Your task to perform on an android device: install app "Roku - Official Remote Control" Image 0: 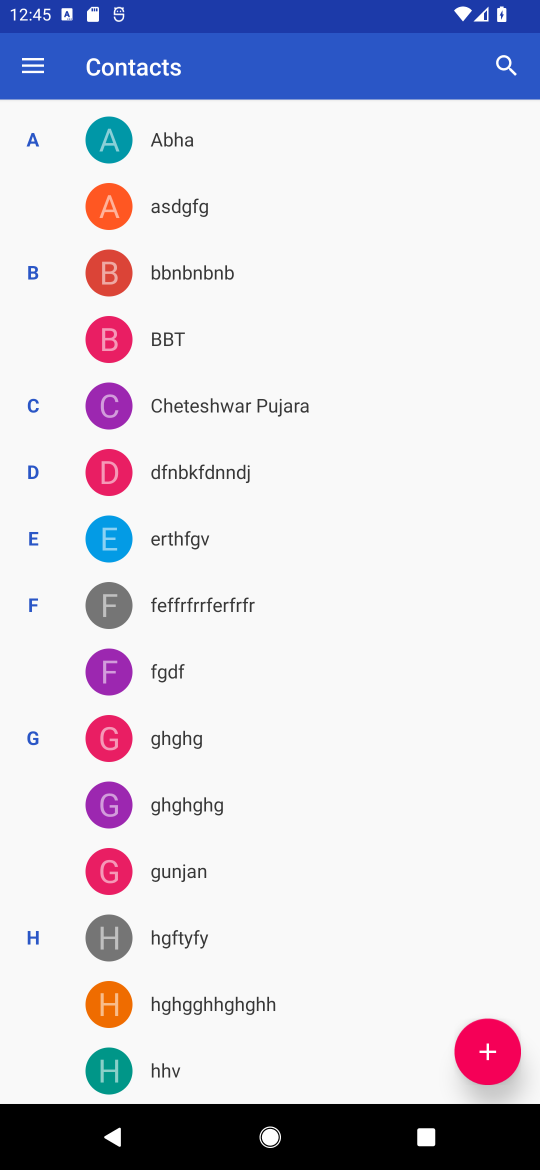
Step 0: press home button
Your task to perform on an android device: install app "Roku - Official Remote Control" Image 1: 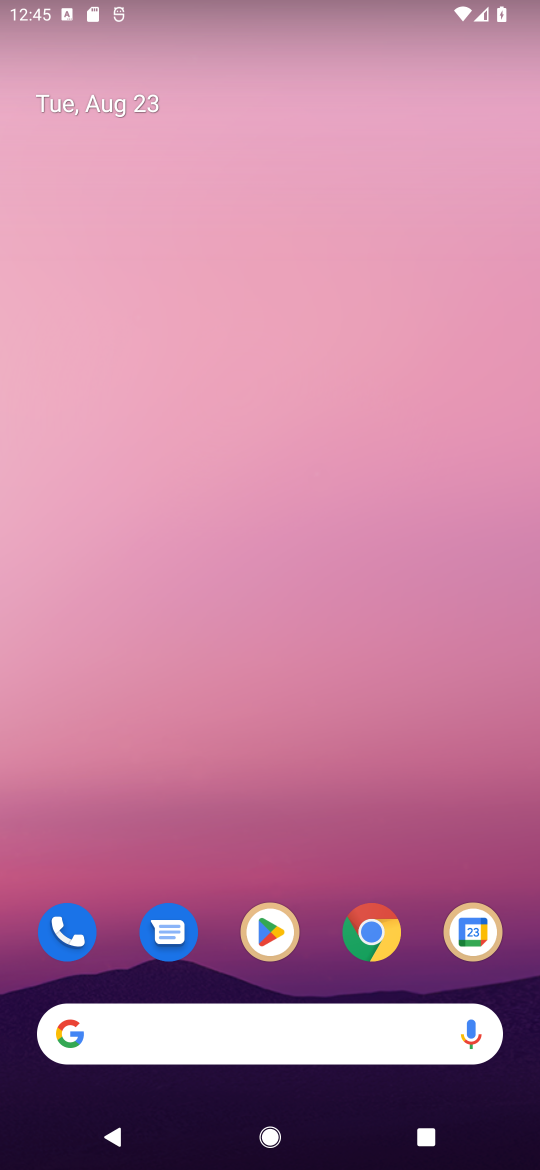
Step 1: click (250, 926)
Your task to perform on an android device: install app "Roku - Official Remote Control" Image 2: 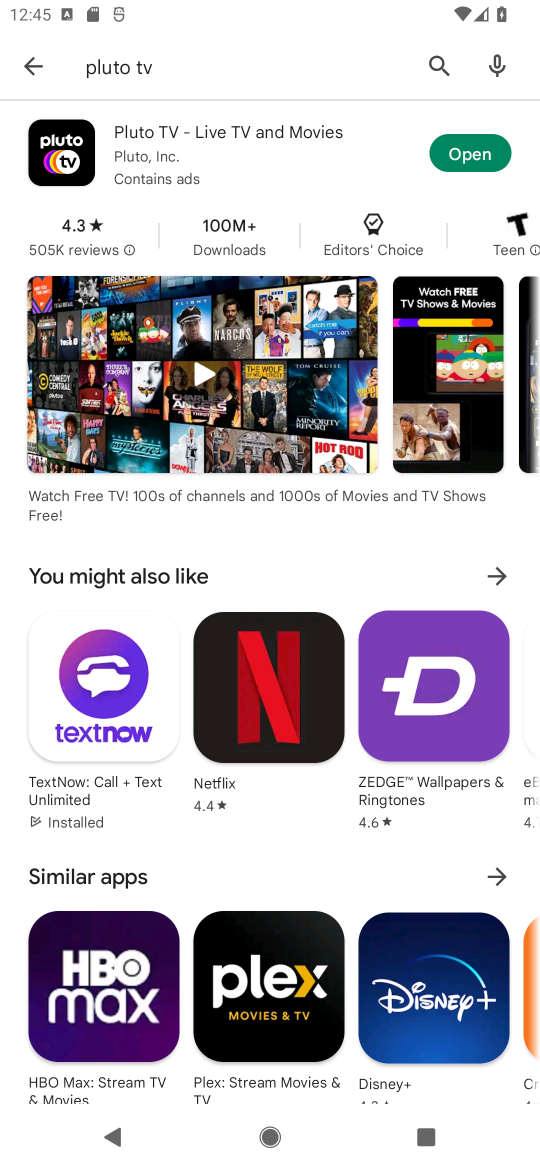
Step 2: click (431, 59)
Your task to perform on an android device: install app "Roku - Official Remote Control" Image 3: 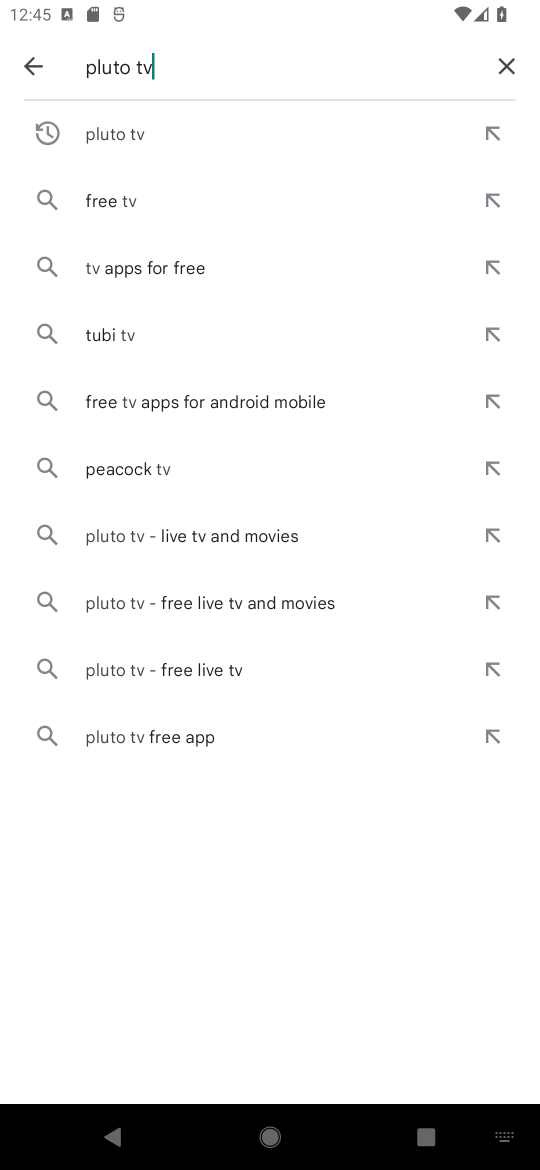
Step 3: click (507, 60)
Your task to perform on an android device: install app "Roku - Official Remote Control" Image 4: 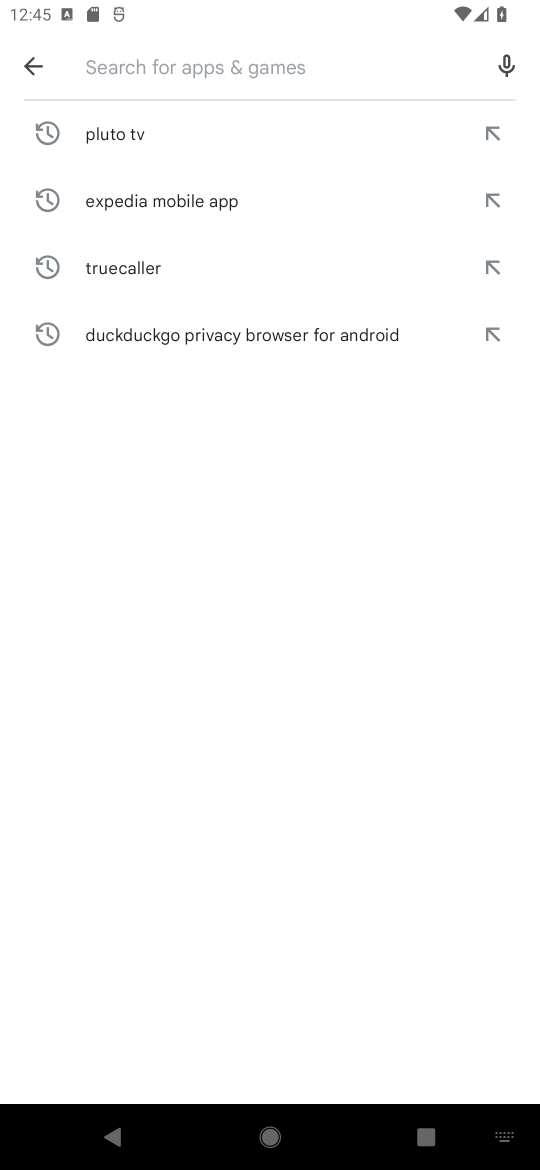
Step 4: click (117, 61)
Your task to perform on an android device: install app "Roku - Official Remote Control" Image 5: 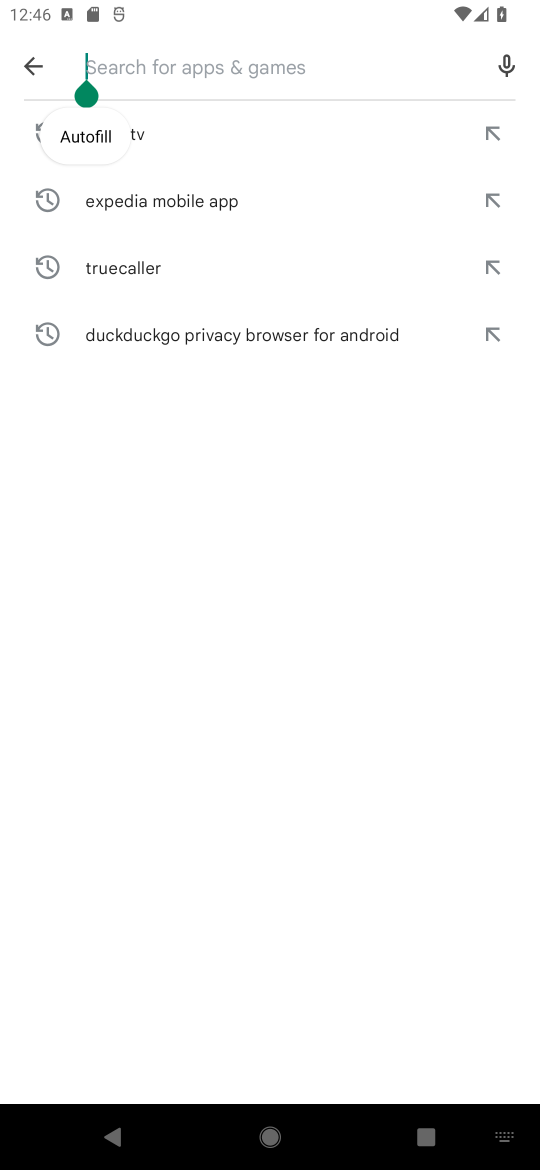
Step 5: type "roku"
Your task to perform on an android device: install app "Roku - Official Remote Control" Image 6: 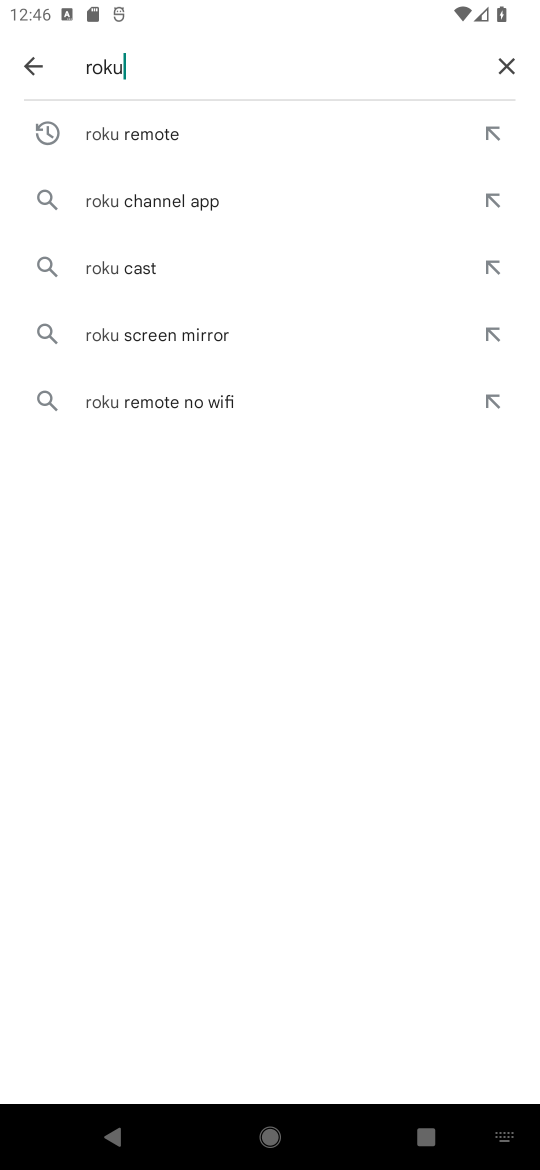
Step 6: click (135, 136)
Your task to perform on an android device: install app "Roku - Official Remote Control" Image 7: 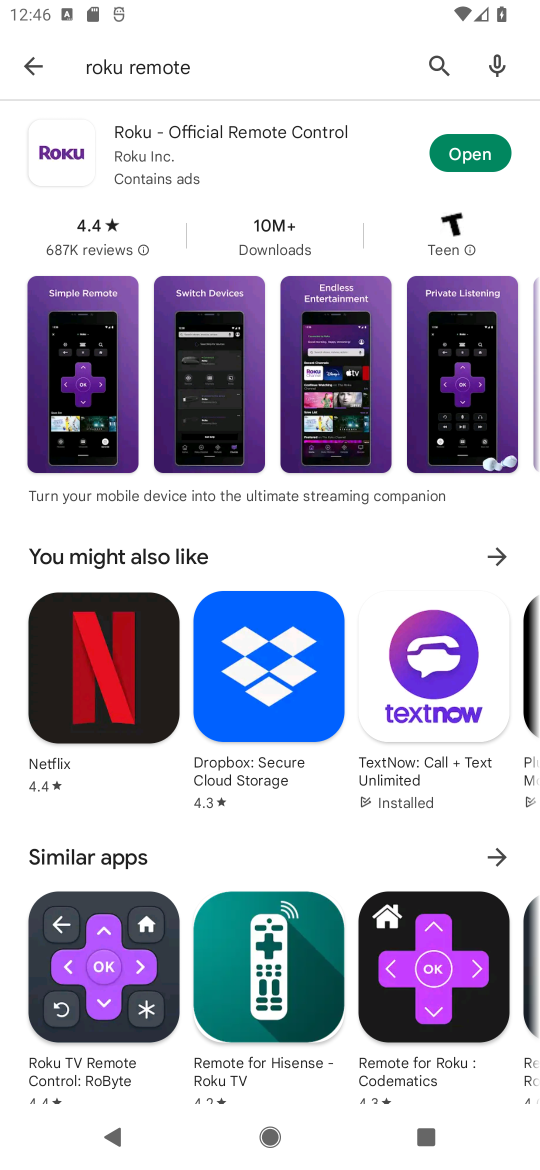
Step 7: click (472, 152)
Your task to perform on an android device: install app "Roku - Official Remote Control" Image 8: 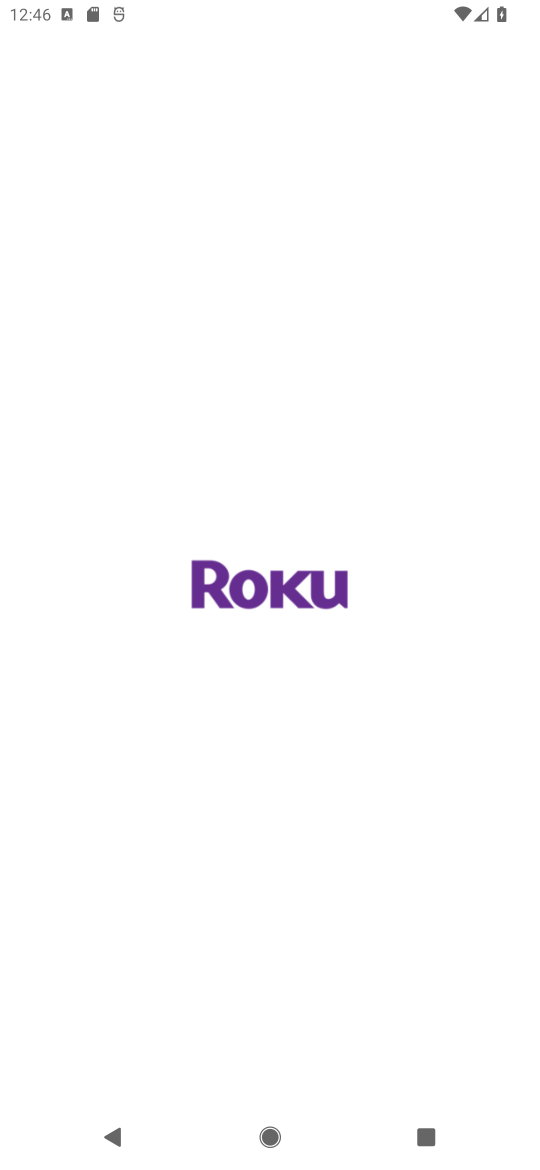
Step 8: task complete